Your task to perform on an android device: empty trash in the gmail app Image 0: 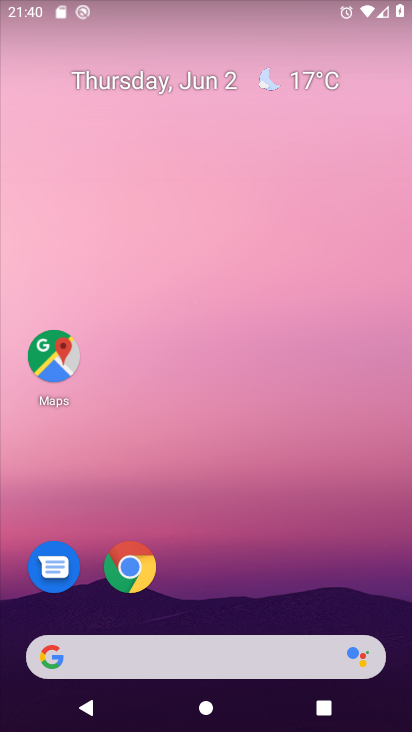
Step 0: drag from (219, 611) to (369, 20)
Your task to perform on an android device: empty trash in the gmail app Image 1: 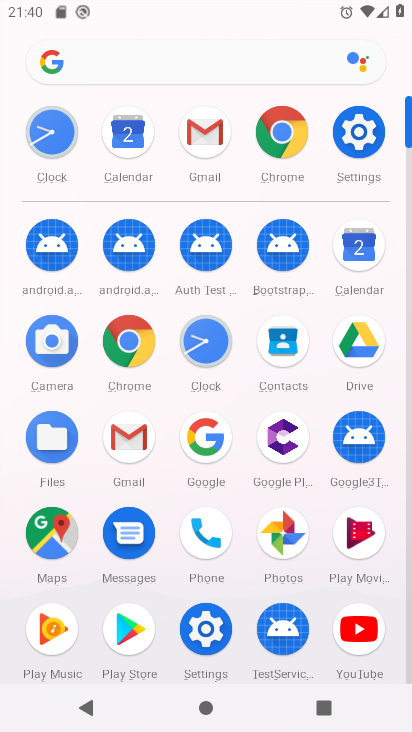
Step 1: click (134, 447)
Your task to perform on an android device: empty trash in the gmail app Image 2: 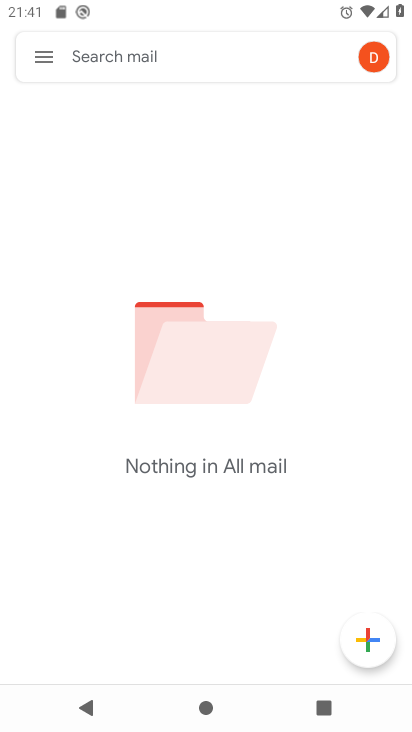
Step 2: click (50, 59)
Your task to perform on an android device: empty trash in the gmail app Image 3: 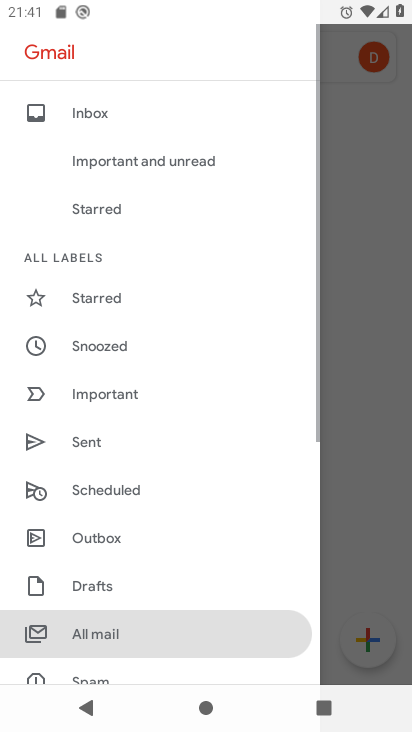
Step 3: drag from (106, 618) to (153, 387)
Your task to perform on an android device: empty trash in the gmail app Image 4: 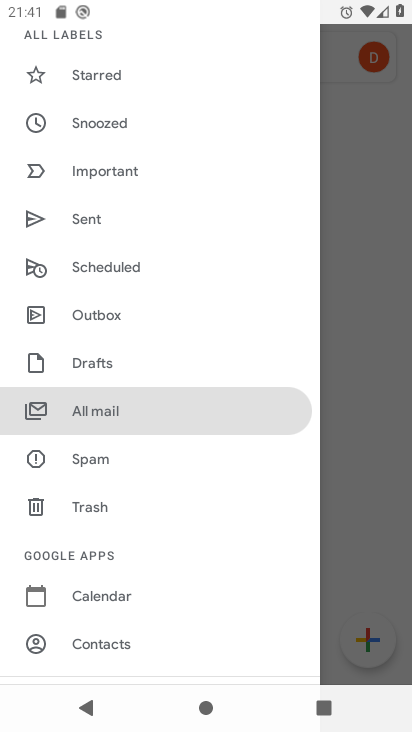
Step 4: click (94, 511)
Your task to perform on an android device: empty trash in the gmail app Image 5: 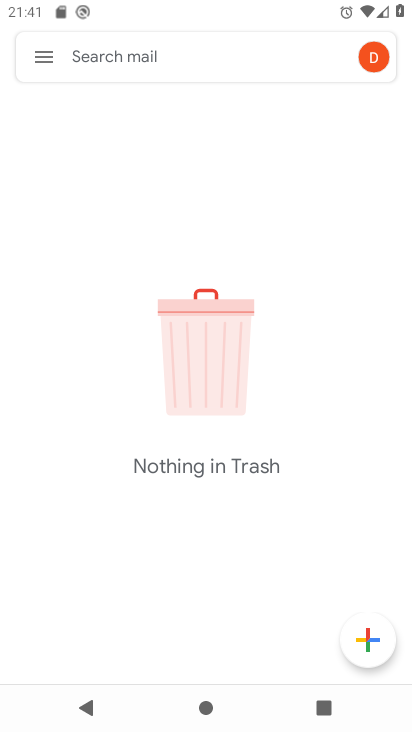
Step 5: task complete